Your task to perform on an android device: change notifications settings Image 0: 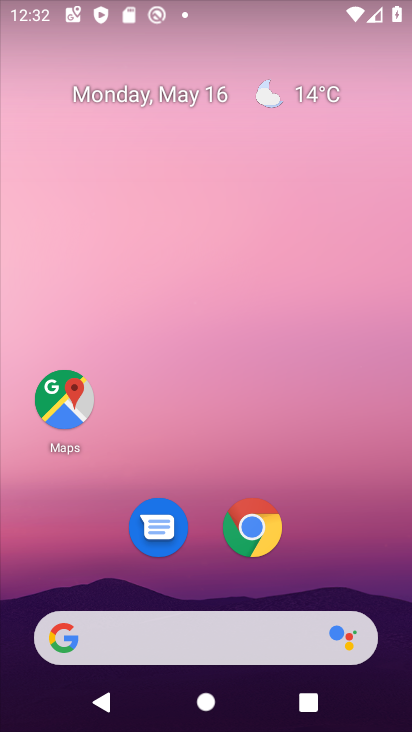
Step 0: drag from (232, 572) to (251, 169)
Your task to perform on an android device: change notifications settings Image 1: 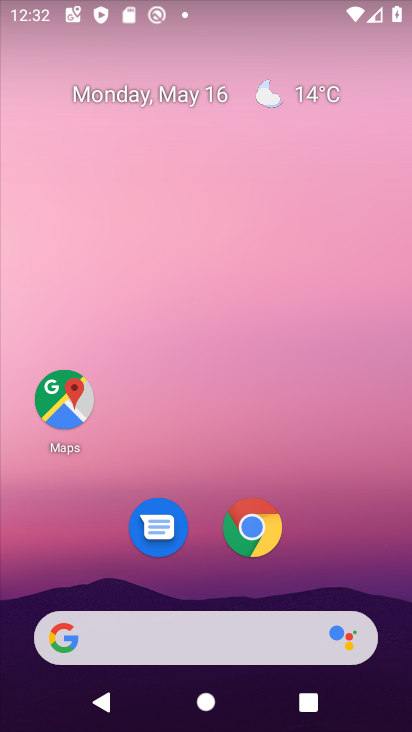
Step 1: drag from (195, 543) to (242, 186)
Your task to perform on an android device: change notifications settings Image 2: 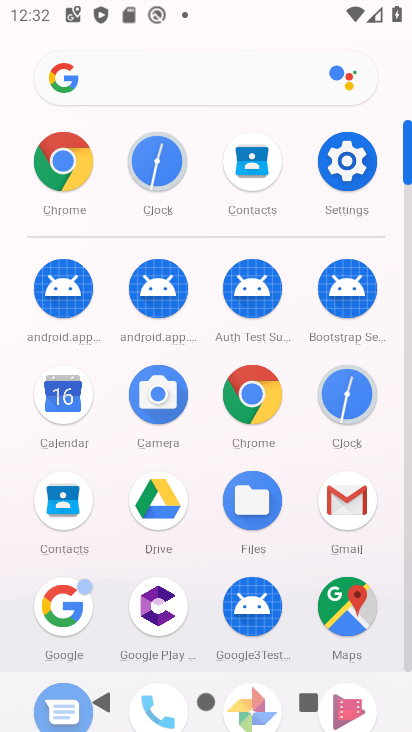
Step 2: click (352, 182)
Your task to perform on an android device: change notifications settings Image 3: 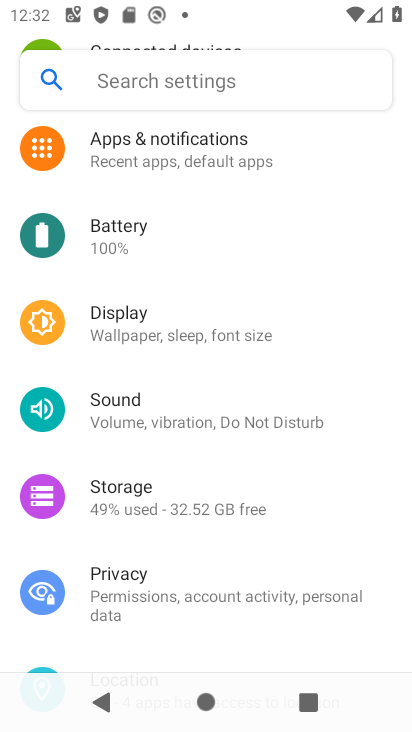
Step 3: click (200, 147)
Your task to perform on an android device: change notifications settings Image 4: 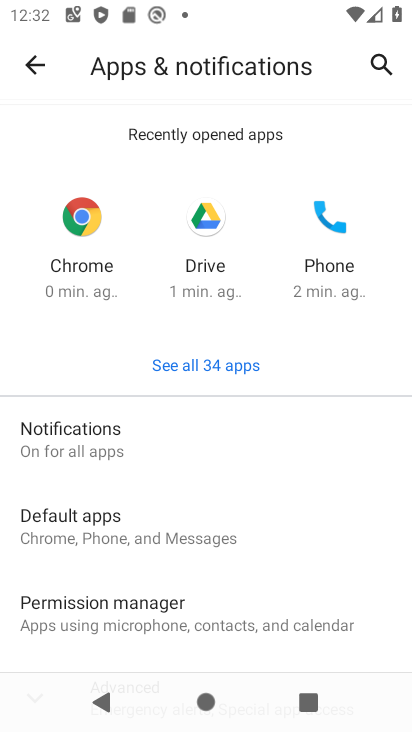
Step 4: click (125, 452)
Your task to perform on an android device: change notifications settings Image 5: 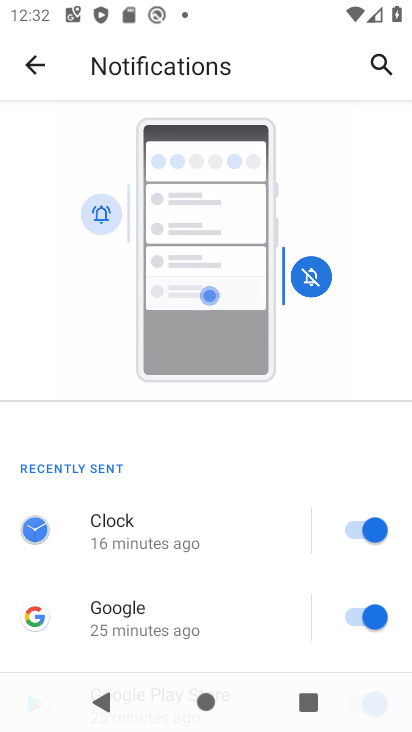
Step 5: drag from (254, 555) to (274, 207)
Your task to perform on an android device: change notifications settings Image 6: 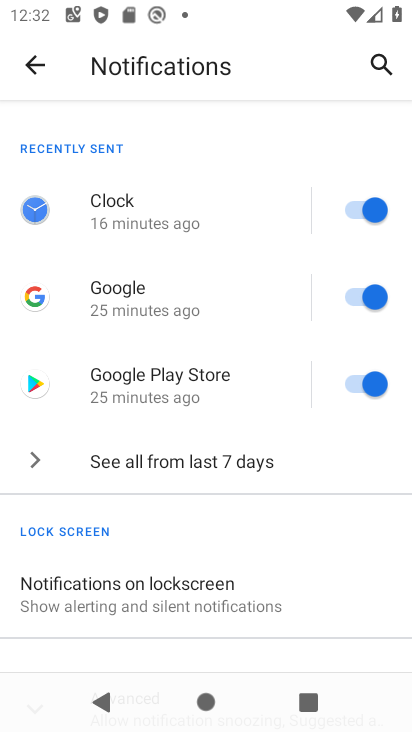
Step 6: click (354, 203)
Your task to perform on an android device: change notifications settings Image 7: 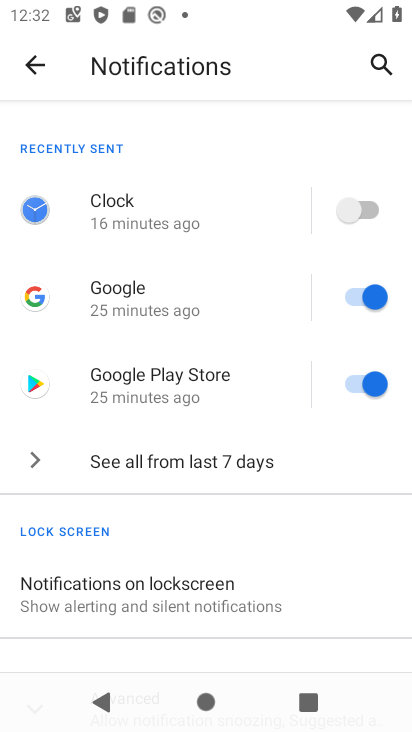
Step 7: click (353, 301)
Your task to perform on an android device: change notifications settings Image 8: 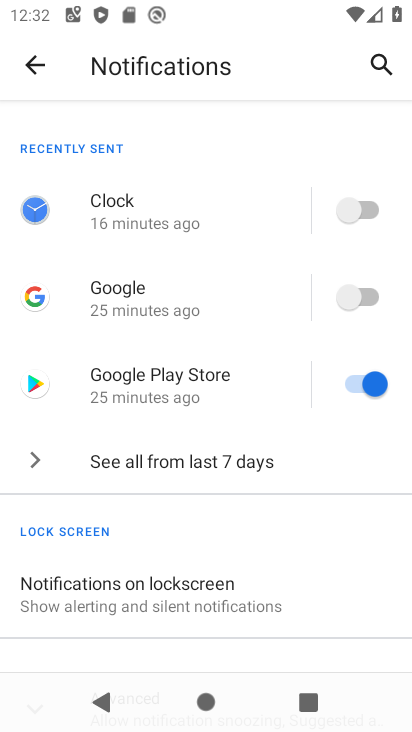
Step 8: click (358, 387)
Your task to perform on an android device: change notifications settings Image 9: 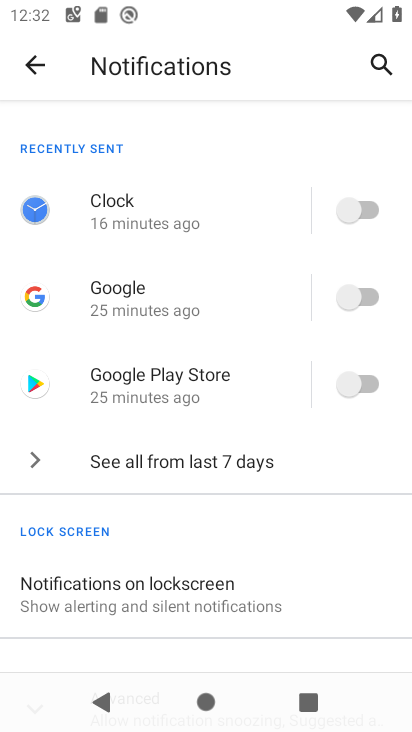
Step 9: drag from (232, 576) to (238, 412)
Your task to perform on an android device: change notifications settings Image 10: 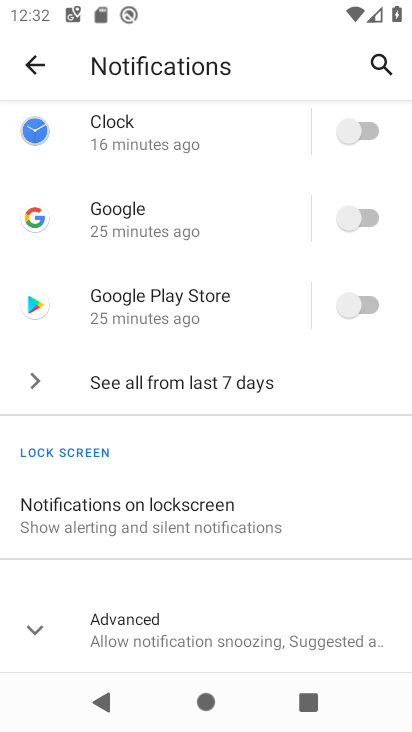
Step 10: click (166, 526)
Your task to perform on an android device: change notifications settings Image 11: 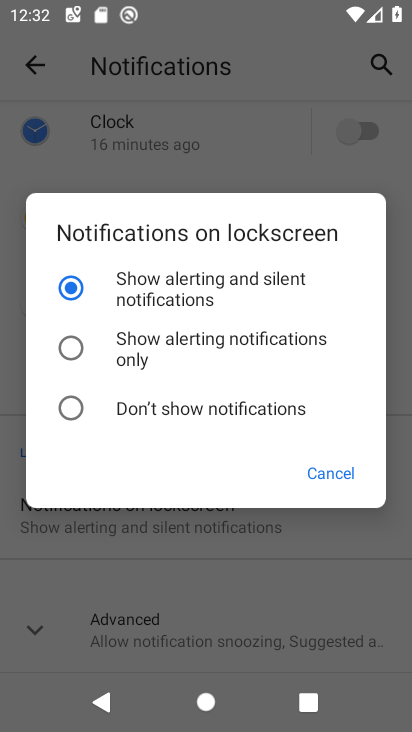
Step 11: click (214, 419)
Your task to perform on an android device: change notifications settings Image 12: 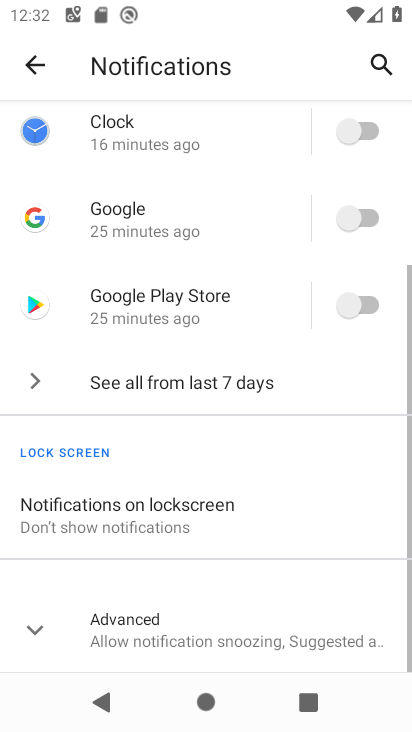
Step 12: task complete